Your task to perform on an android device: delete a single message in the gmail app Image 0: 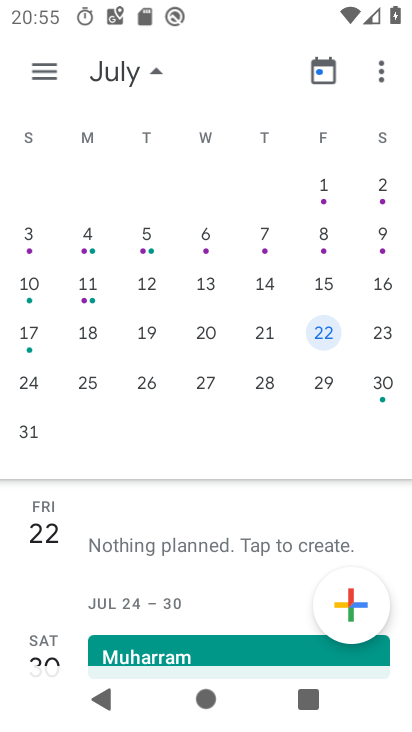
Step 0: press home button
Your task to perform on an android device: delete a single message in the gmail app Image 1: 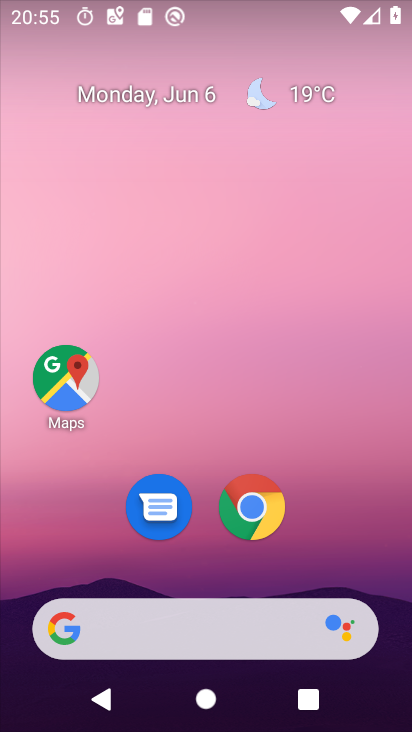
Step 1: drag from (219, 570) to (220, 84)
Your task to perform on an android device: delete a single message in the gmail app Image 2: 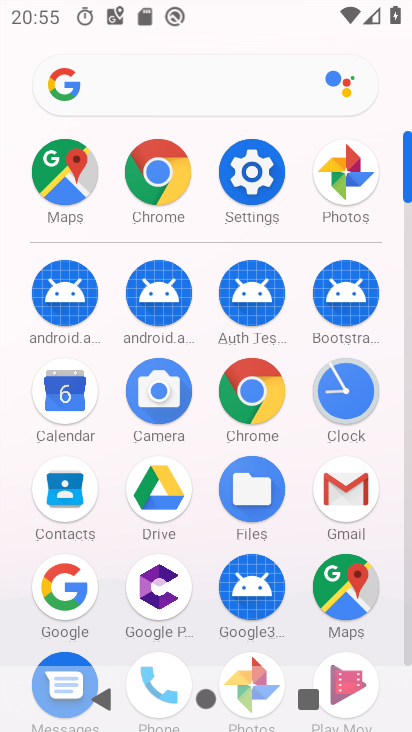
Step 2: click (334, 475)
Your task to perform on an android device: delete a single message in the gmail app Image 3: 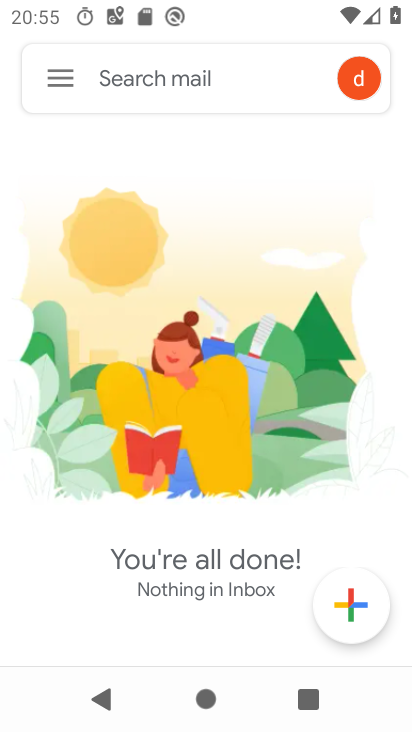
Step 3: task complete